Your task to perform on an android device: What is the news today? Image 0: 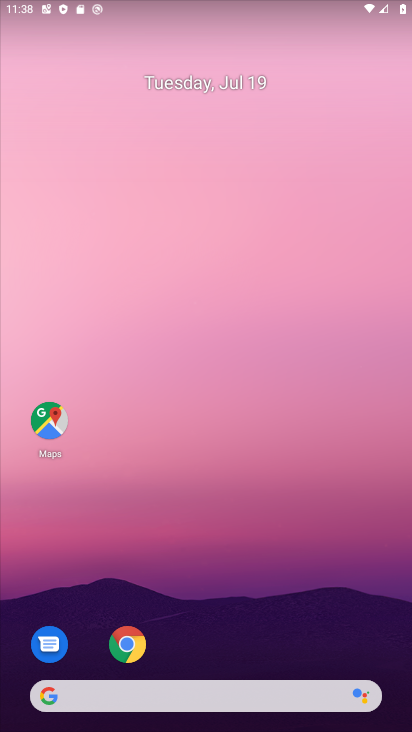
Step 0: click (100, 700)
Your task to perform on an android device: What is the news today? Image 1: 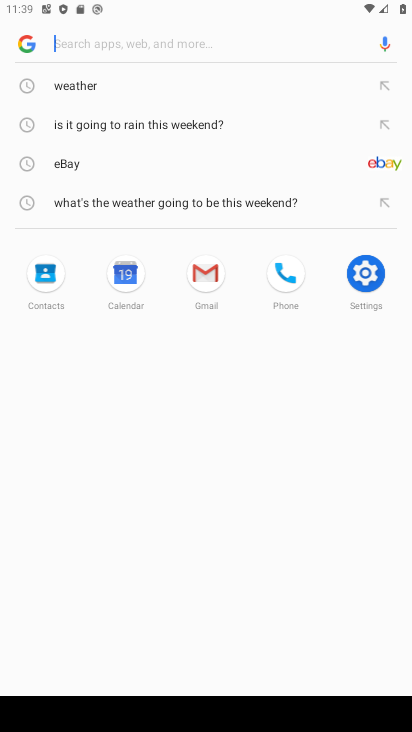
Step 1: type "What is the news today?"
Your task to perform on an android device: What is the news today? Image 2: 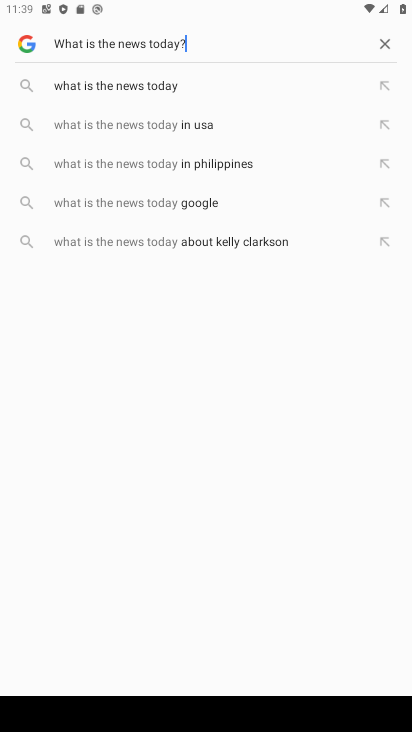
Step 2: type ""
Your task to perform on an android device: What is the news today? Image 3: 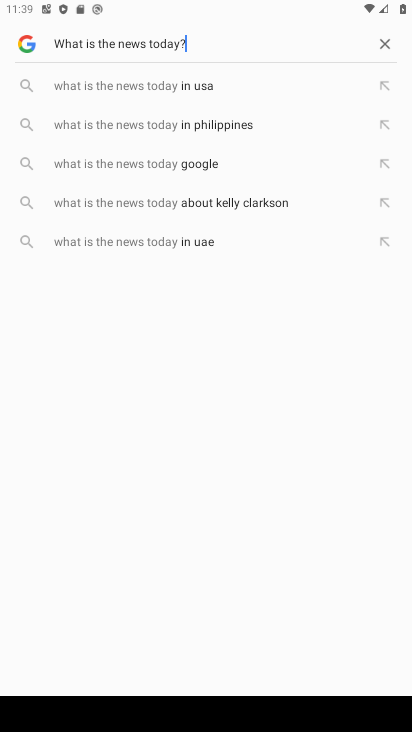
Step 3: type ""
Your task to perform on an android device: What is the news today? Image 4: 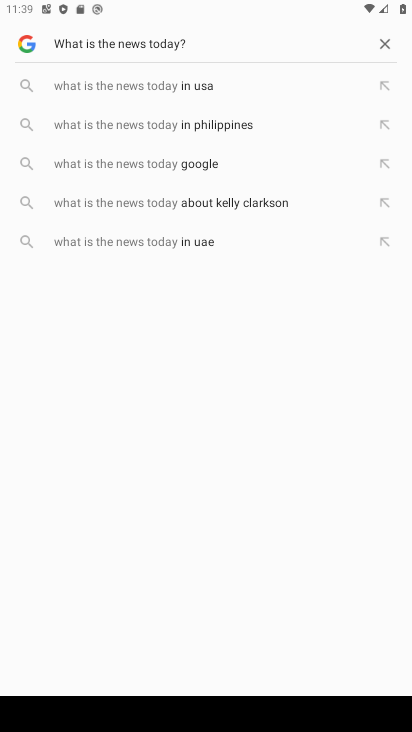
Step 4: type ""
Your task to perform on an android device: What is the news today? Image 5: 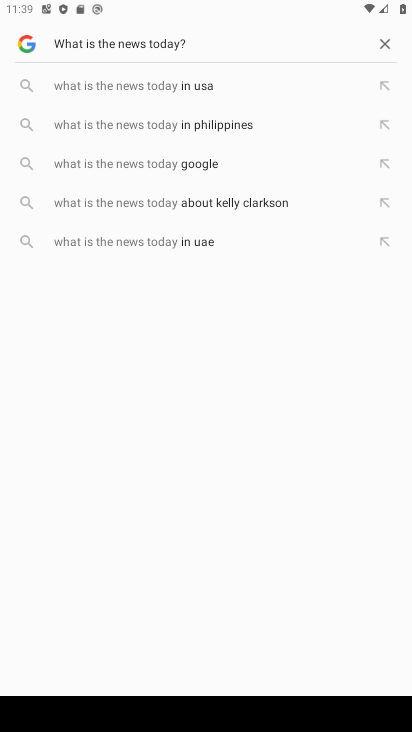
Step 5: task complete